Your task to perform on an android device: Open ESPN.com Image 0: 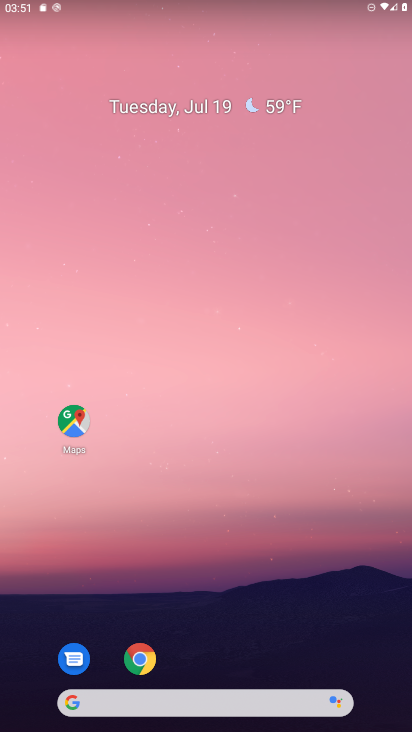
Step 0: click (141, 659)
Your task to perform on an android device: Open ESPN.com Image 1: 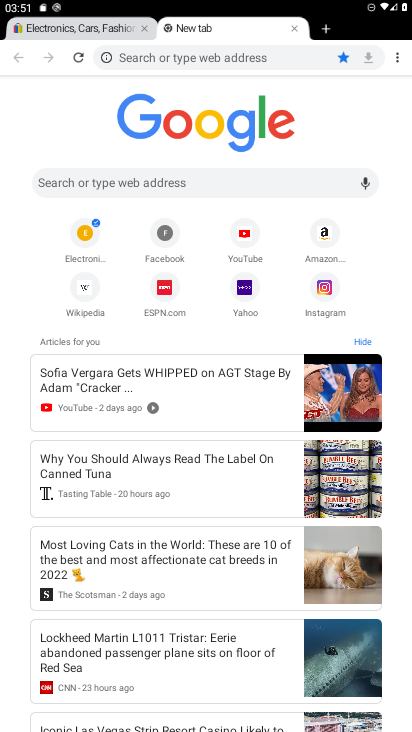
Step 1: click (164, 288)
Your task to perform on an android device: Open ESPN.com Image 2: 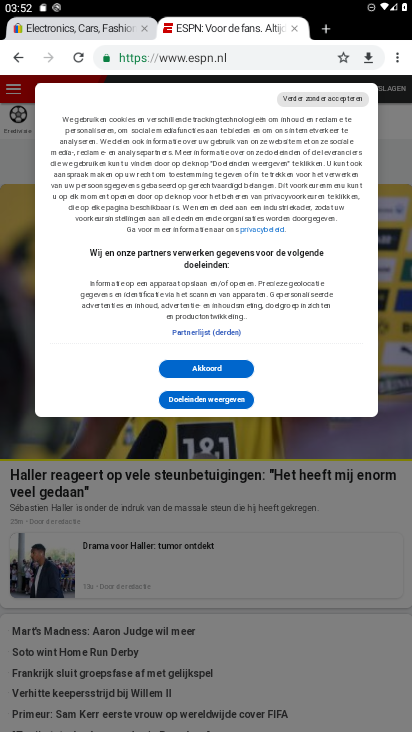
Step 2: click (307, 246)
Your task to perform on an android device: Open ESPN.com Image 3: 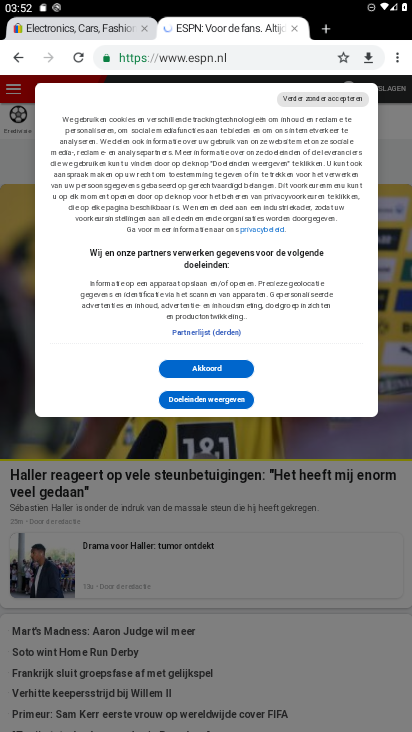
Step 3: click (200, 372)
Your task to perform on an android device: Open ESPN.com Image 4: 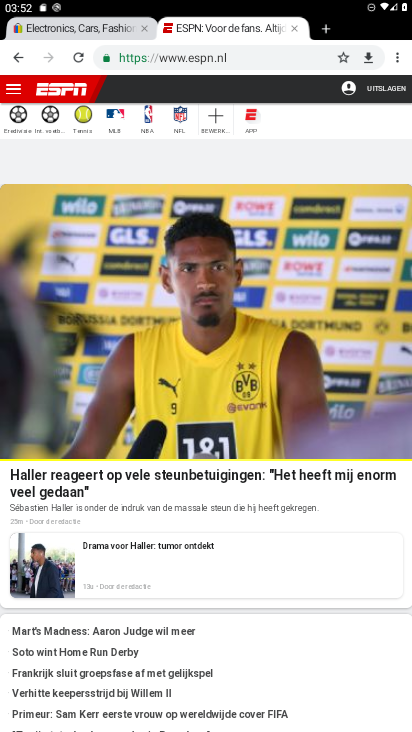
Step 4: task complete